Your task to perform on an android device: Open Android settings Image 0: 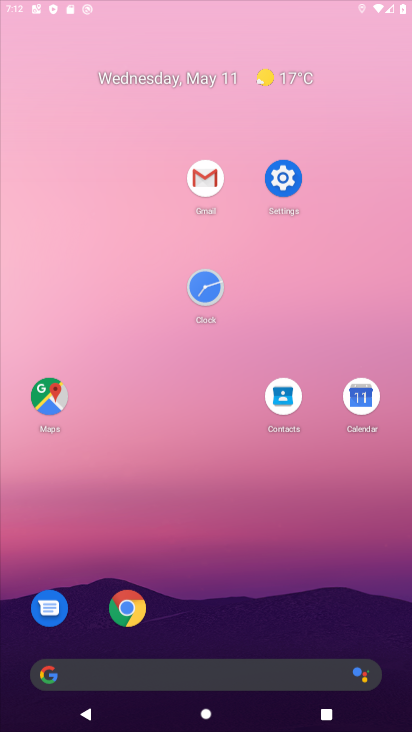
Step 0: drag from (222, 633) to (188, 475)
Your task to perform on an android device: Open Android settings Image 1: 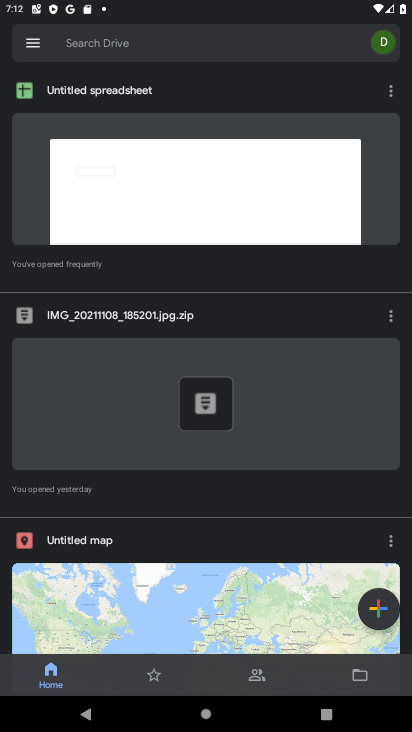
Step 1: press home button
Your task to perform on an android device: Open Android settings Image 2: 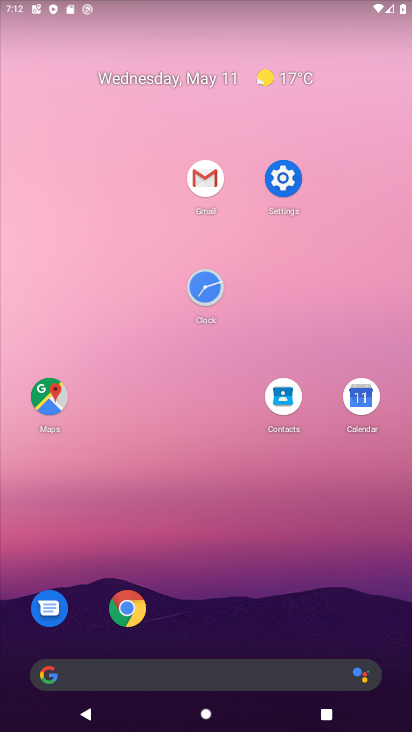
Step 2: drag from (257, 608) to (256, 56)
Your task to perform on an android device: Open Android settings Image 3: 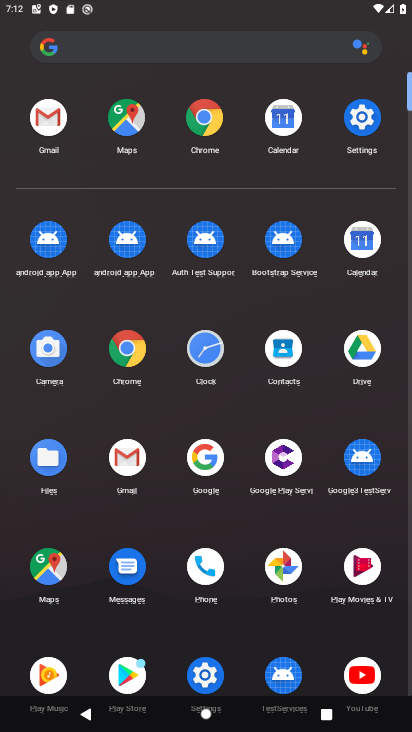
Step 3: click (355, 144)
Your task to perform on an android device: Open Android settings Image 4: 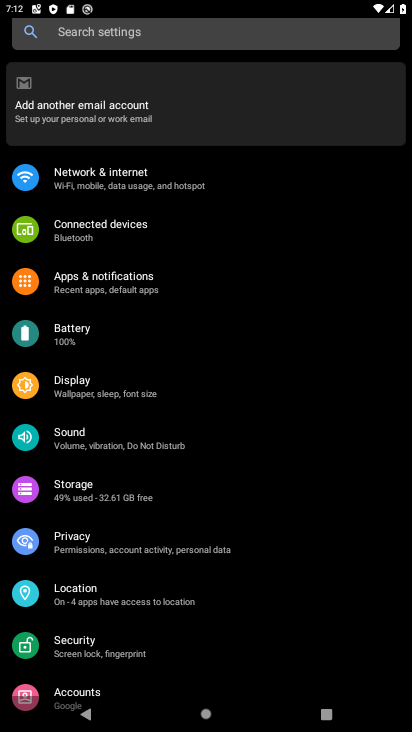
Step 4: drag from (184, 617) to (213, 361)
Your task to perform on an android device: Open Android settings Image 5: 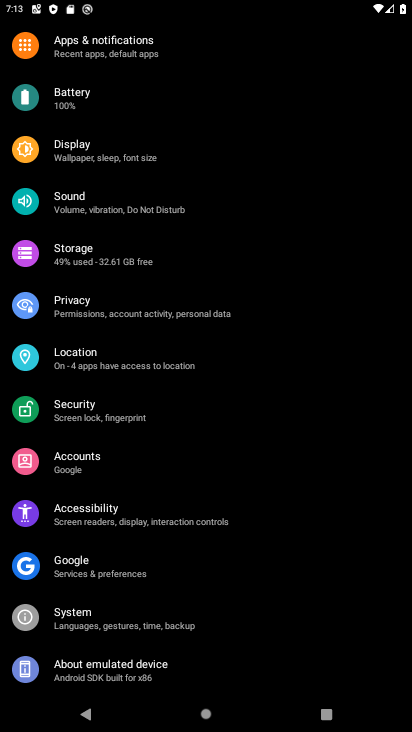
Step 5: click (114, 654)
Your task to perform on an android device: Open Android settings Image 6: 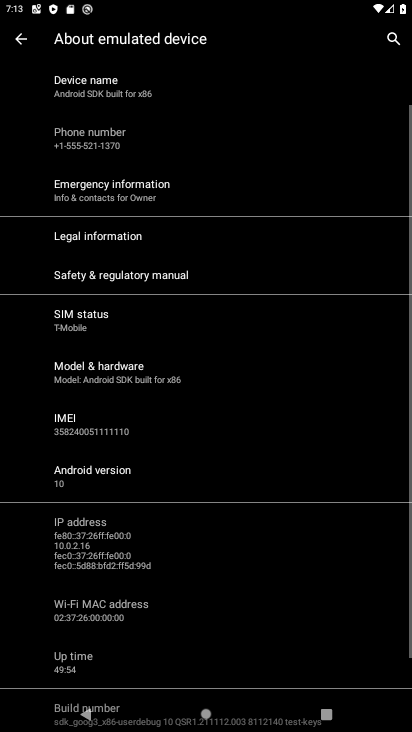
Step 6: click (201, 375)
Your task to perform on an android device: Open Android settings Image 7: 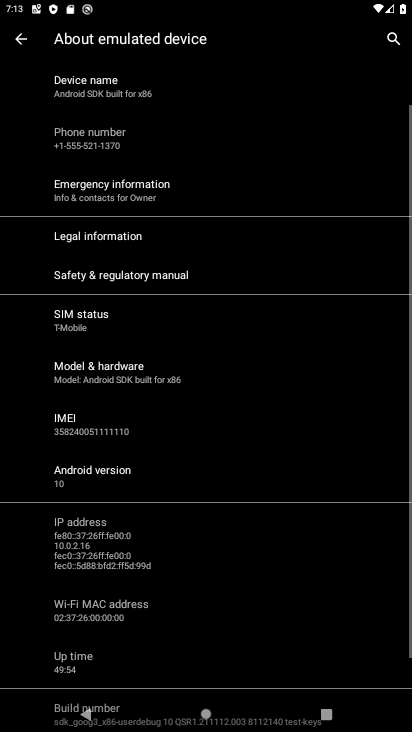
Step 7: click (201, 375)
Your task to perform on an android device: Open Android settings Image 8: 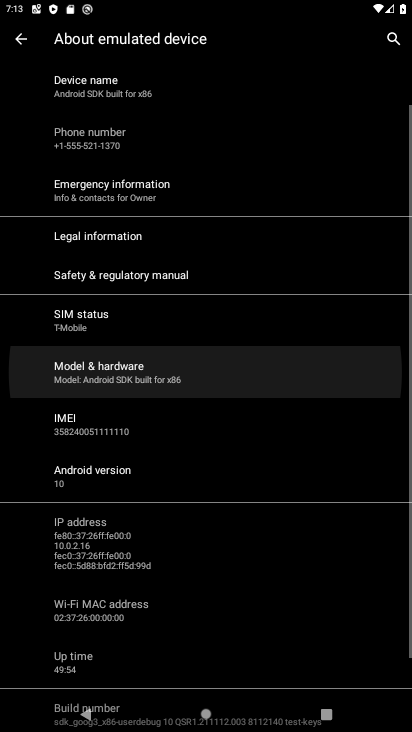
Step 8: click (201, 375)
Your task to perform on an android device: Open Android settings Image 9: 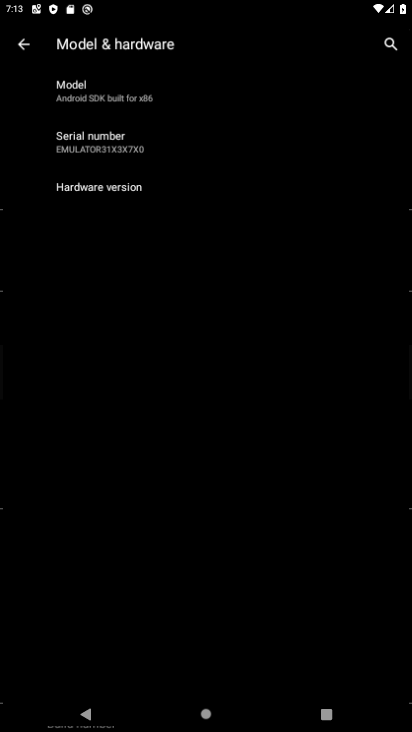
Step 9: click (201, 375)
Your task to perform on an android device: Open Android settings Image 10: 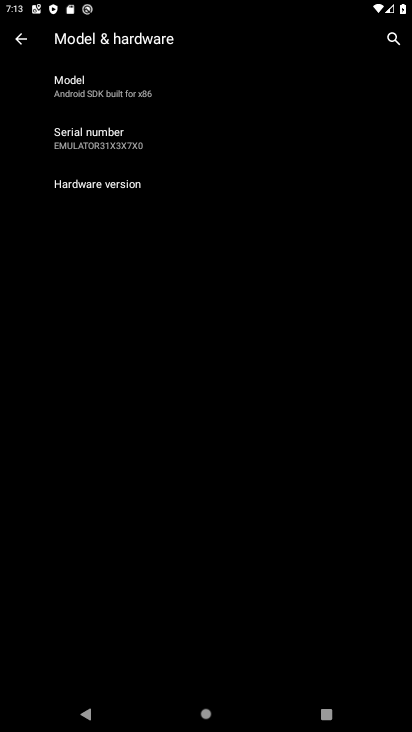
Step 10: click (201, 375)
Your task to perform on an android device: Open Android settings Image 11: 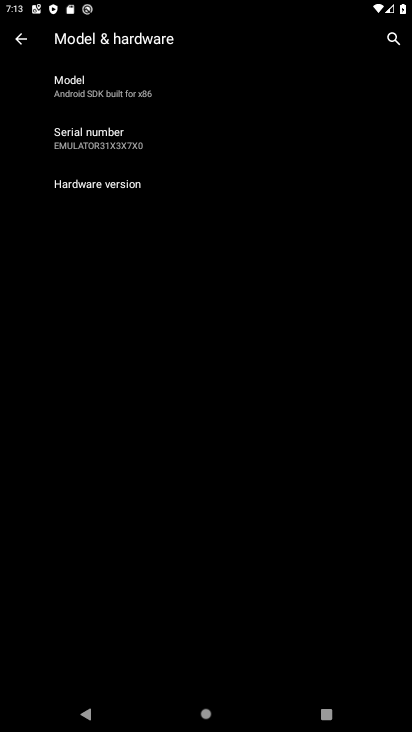
Step 11: click (201, 375)
Your task to perform on an android device: Open Android settings Image 12: 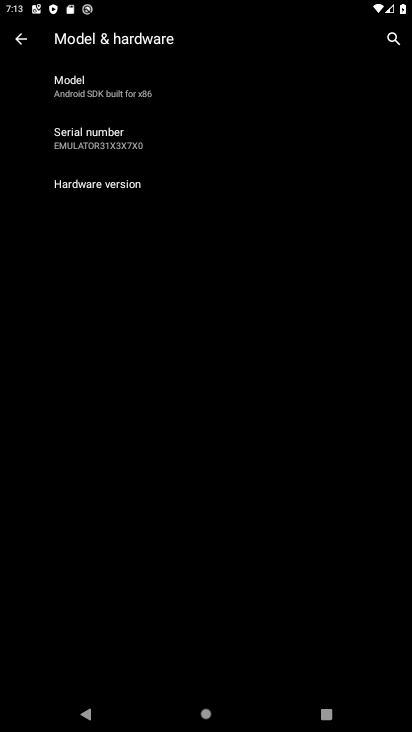
Step 12: click (201, 375)
Your task to perform on an android device: Open Android settings Image 13: 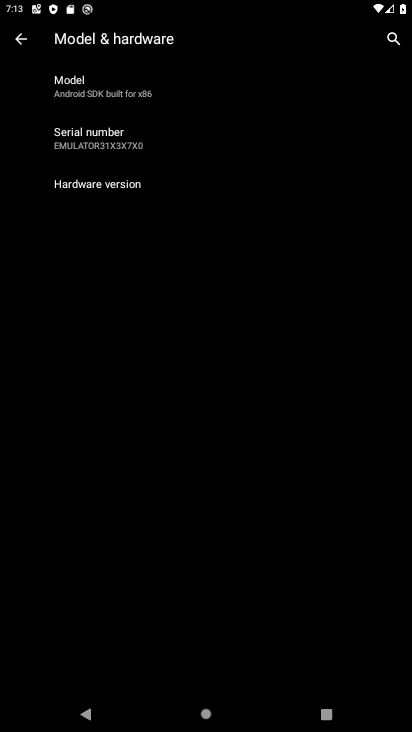
Step 13: click (201, 375)
Your task to perform on an android device: Open Android settings Image 14: 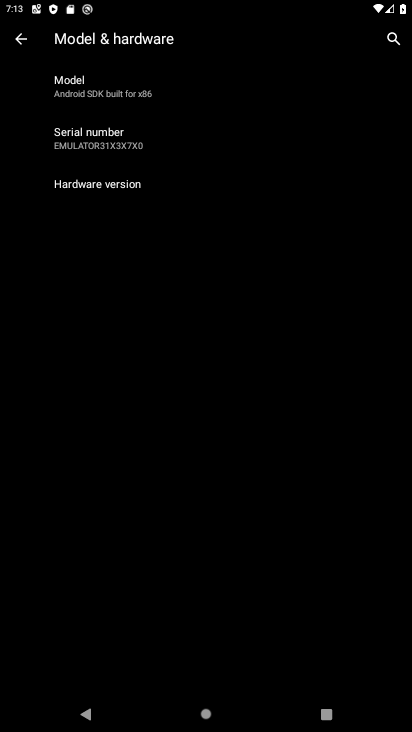
Step 14: click (119, 185)
Your task to perform on an android device: Open Android settings Image 15: 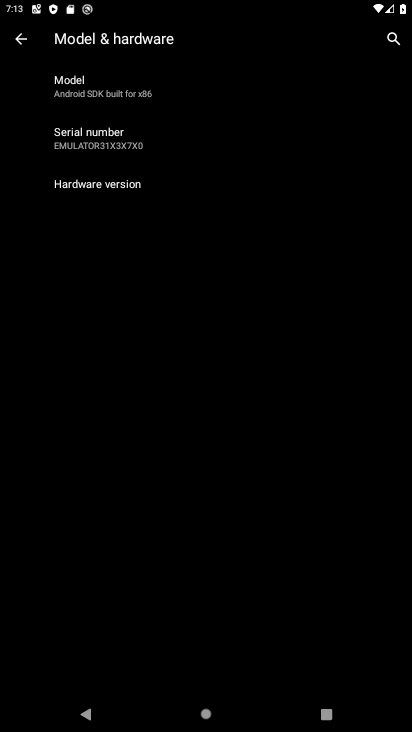
Step 15: click (119, 185)
Your task to perform on an android device: Open Android settings Image 16: 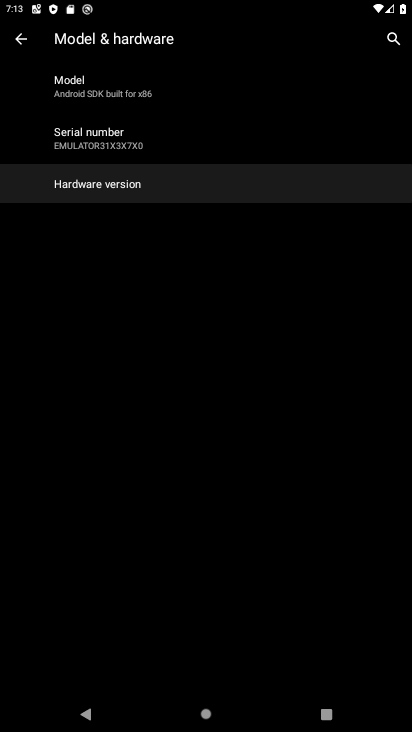
Step 16: click (119, 185)
Your task to perform on an android device: Open Android settings Image 17: 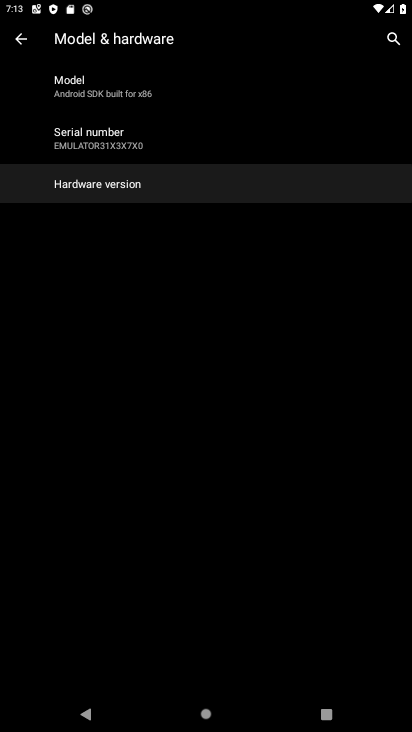
Step 17: click (119, 185)
Your task to perform on an android device: Open Android settings Image 18: 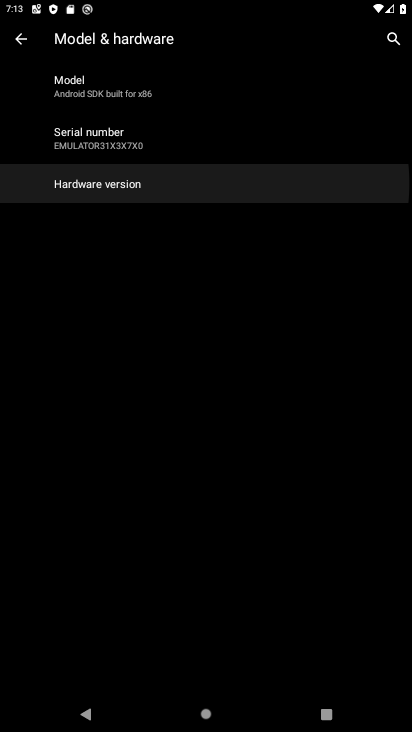
Step 18: click (119, 185)
Your task to perform on an android device: Open Android settings Image 19: 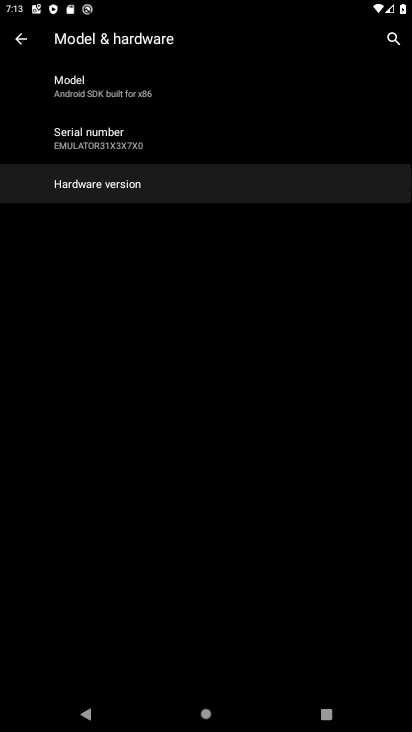
Step 19: click (119, 185)
Your task to perform on an android device: Open Android settings Image 20: 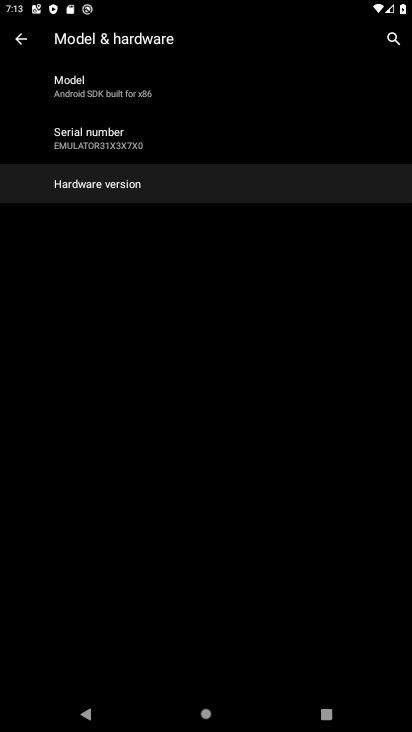
Step 20: click (119, 185)
Your task to perform on an android device: Open Android settings Image 21: 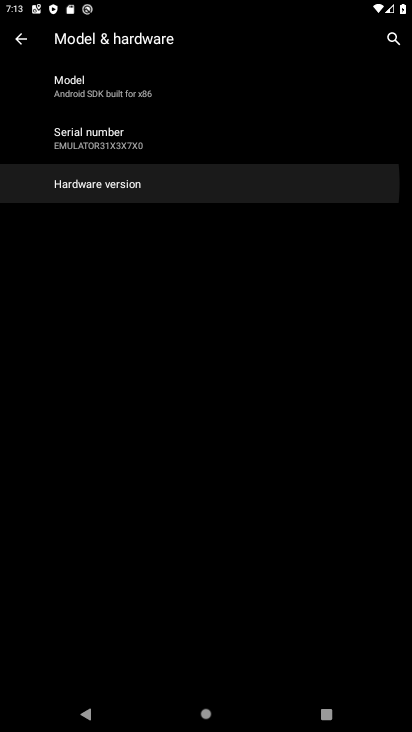
Step 21: click (119, 185)
Your task to perform on an android device: Open Android settings Image 22: 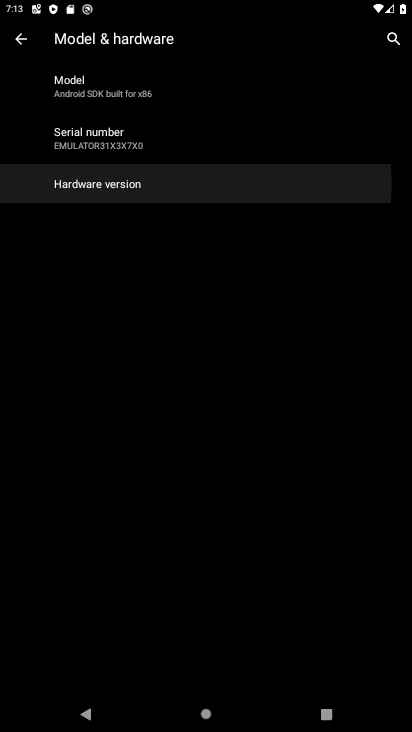
Step 22: click (119, 185)
Your task to perform on an android device: Open Android settings Image 23: 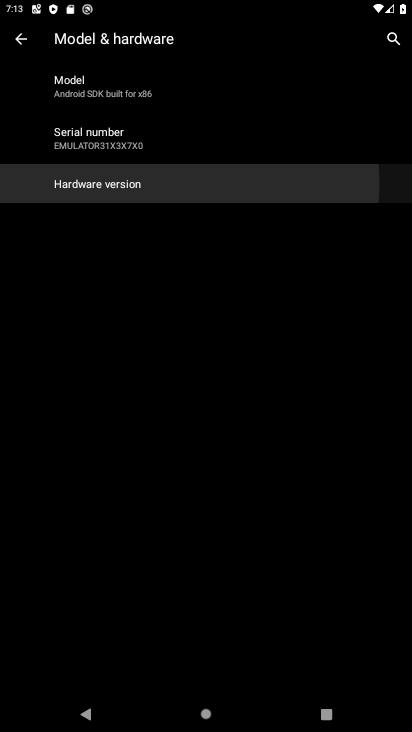
Step 23: click (119, 185)
Your task to perform on an android device: Open Android settings Image 24: 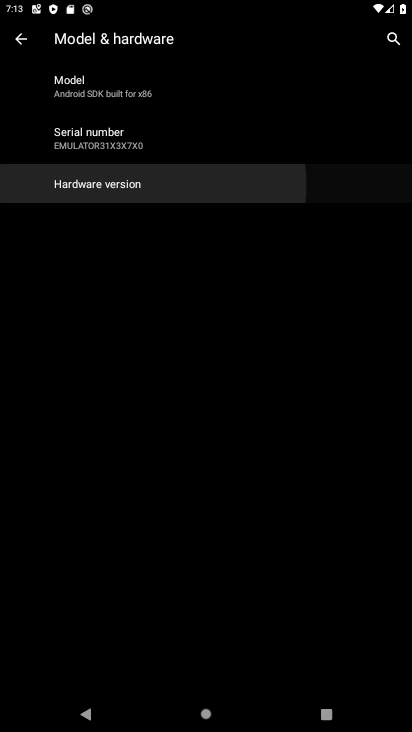
Step 24: click (119, 185)
Your task to perform on an android device: Open Android settings Image 25: 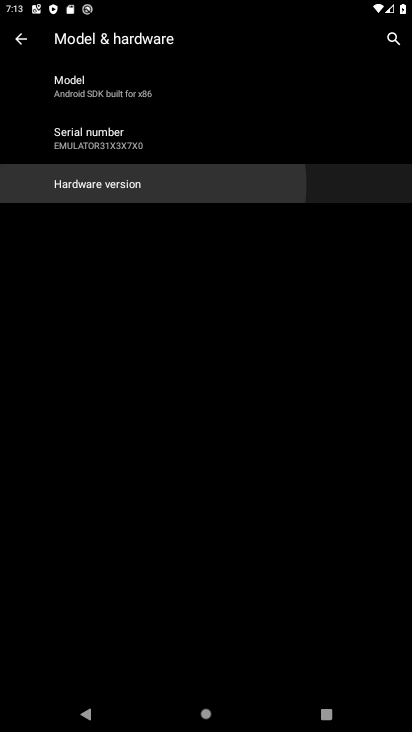
Step 25: click (119, 185)
Your task to perform on an android device: Open Android settings Image 26: 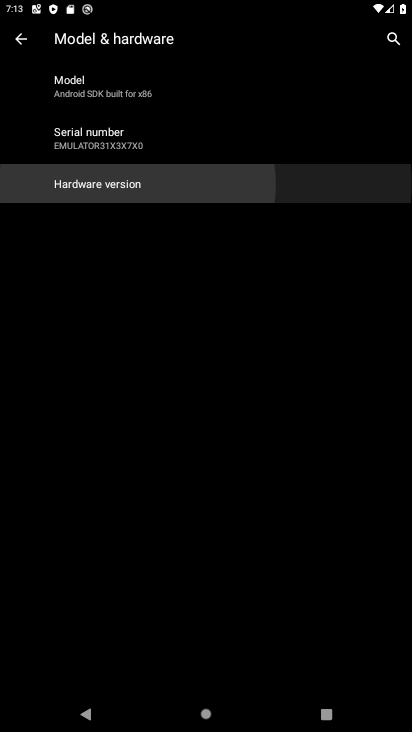
Step 26: click (119, 185)
Your task to perform on an android device: Open Android settings Image 27: 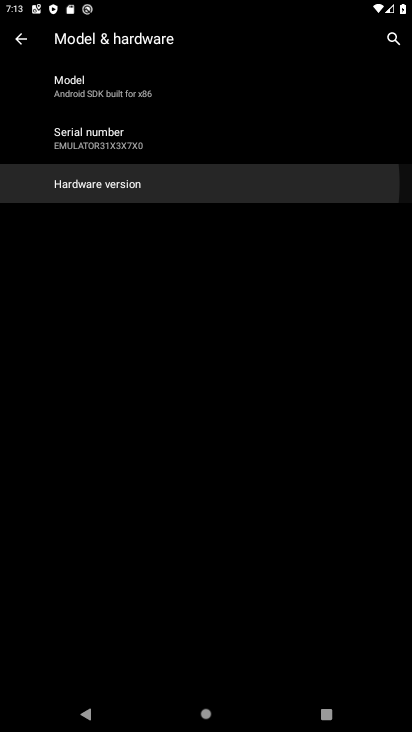
Step 27: click (119, 185)
Your task to perform on an android device: Open Android settings Image 28: 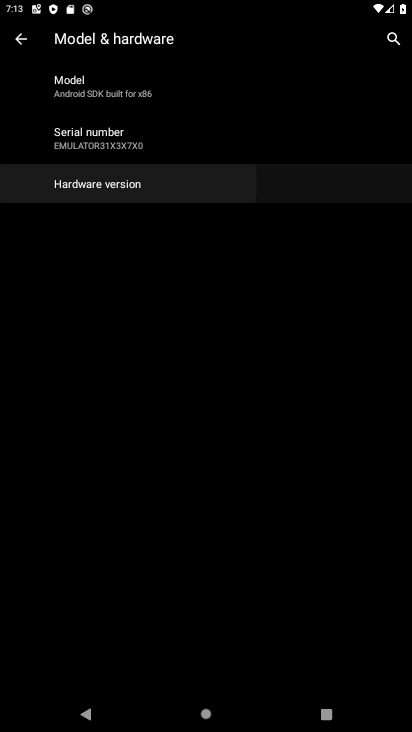
Step 28: click (119, 185)
Your task to perform on an android device: Open Android settings Image 29: 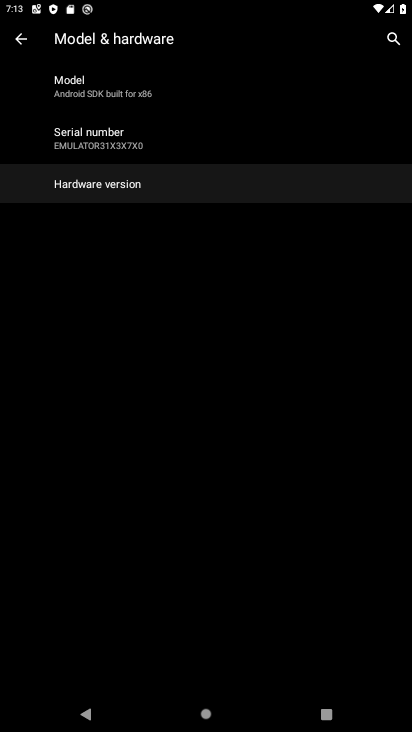
Step 29: click (119, 185)
Your task to perform on an android device: Open Android settings Image 30: 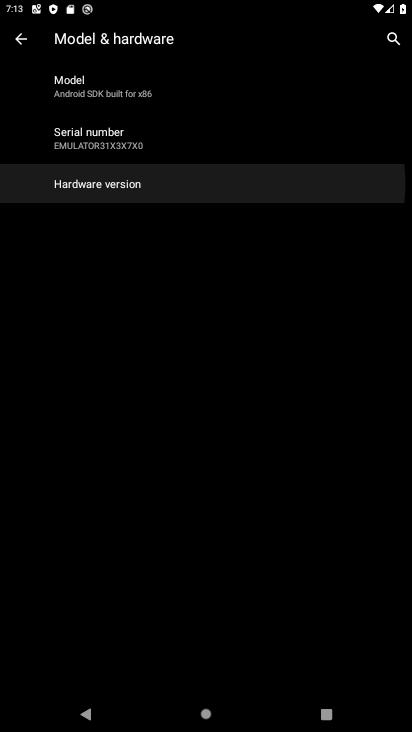
Step 30: click (119, 185)
Your task to perform on an android device: Open Android settings Image 31: 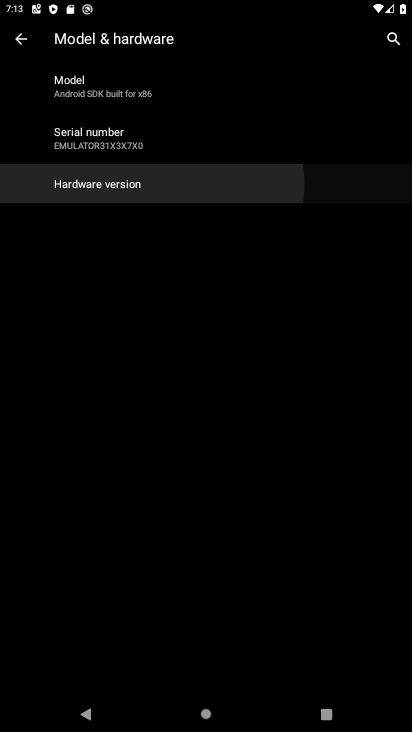
Step 31: click (119, 185)
Your task to perform on an android device: Open Android settings Image 32: 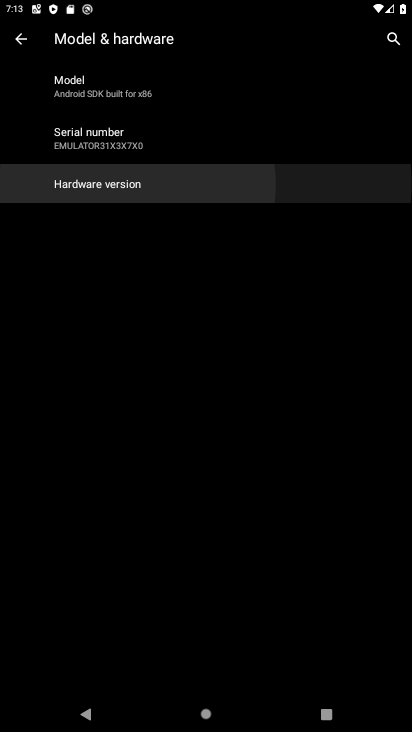
Step 32: click (119, 185)
Your task to perform on an android device: Open Android settings Image 33: 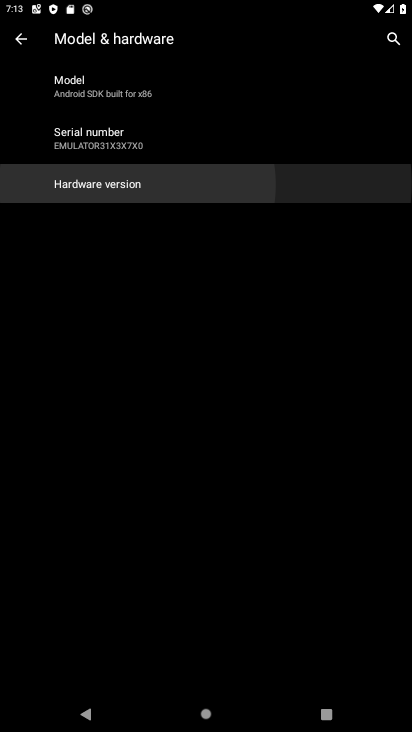
Step 33: click (119, 185)
Your task to perform on an android device: Open Android settings Image 34: 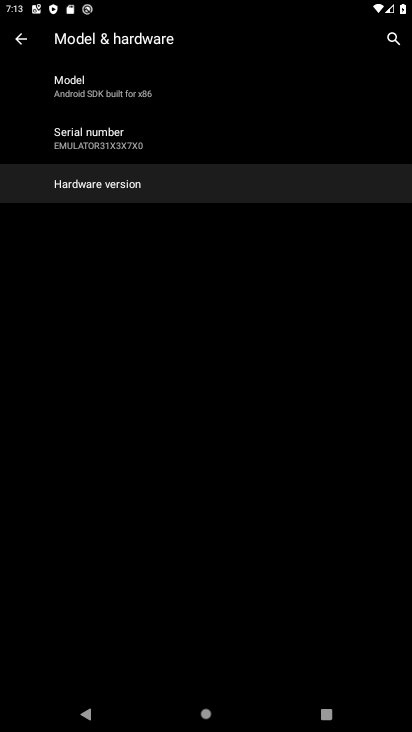
Step 34: click (119, 185)
Your task to perform on an android device: Open Android settings Image 35: 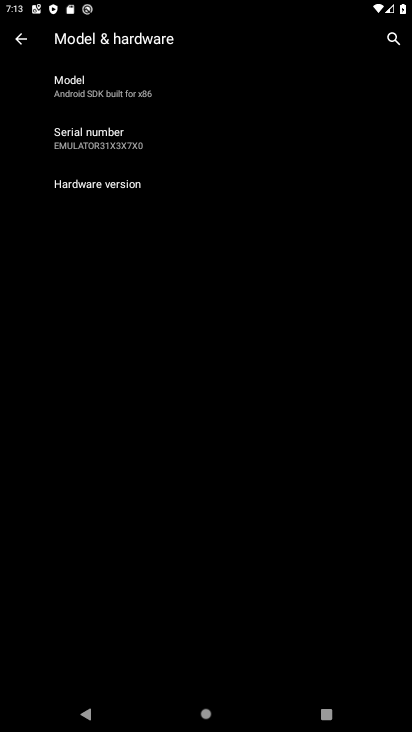
Step 35: click (31, 50)
Your task to perform on an android device: Open Android settings Image 36: 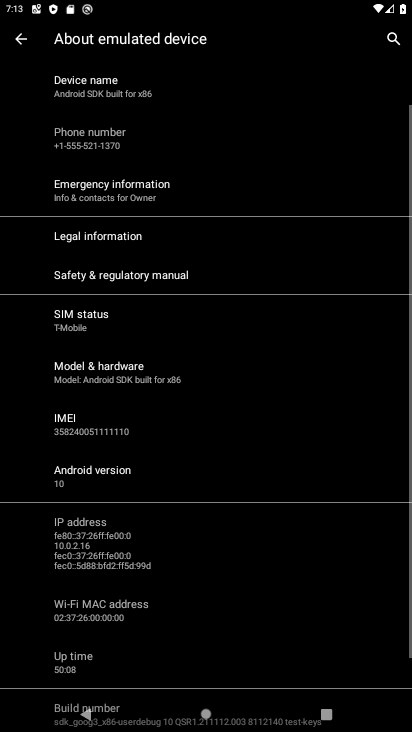
Step 36: click (123, 463)
Your task to perform on an android device: Open Android settings Image 37: 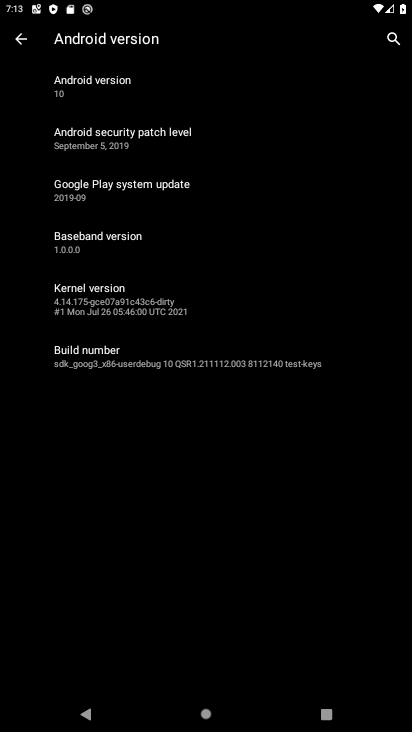
Step 37: task complete